Your task to perform on an android device: What's on my calendar today? Image 0: 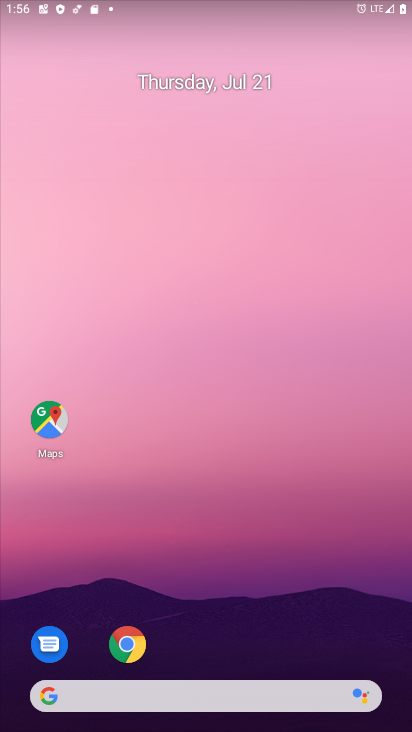
Step 0: drag from (248, 685) to (235, 323)
Your task to perform on an android device: What's on my calendar today? Image 1: 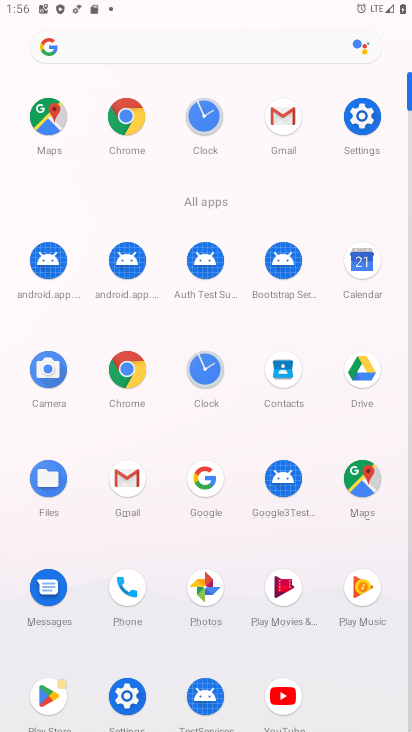
Step 1: click (361, 274)
Your task to perform on an android device: What's on my calendar today? Image 2: 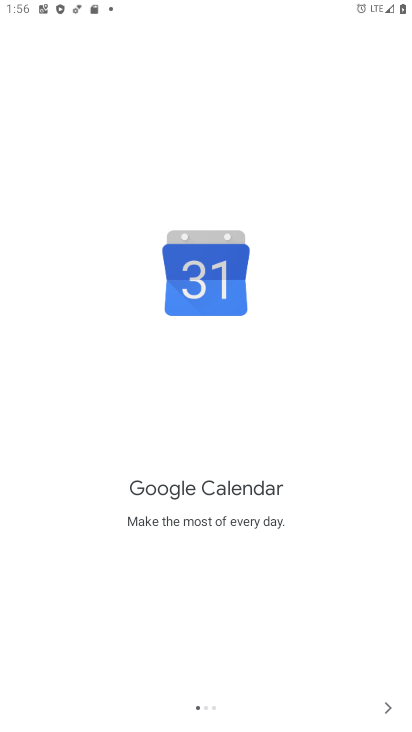
Step 2: click (383, 706)
Your task to perform on an android device: What's on my calendar today? Image 3: 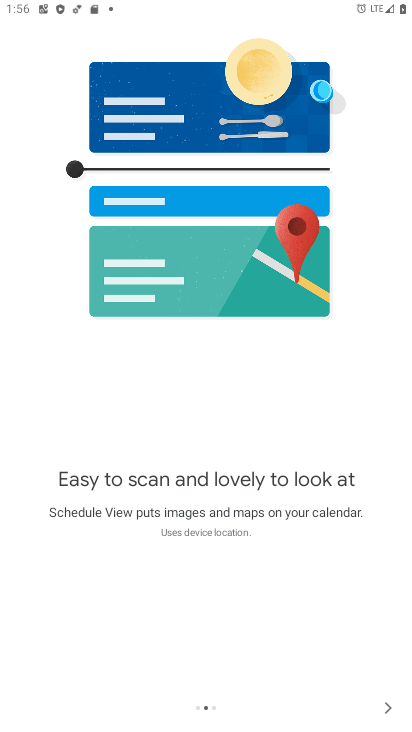
Step 3: click (383, 706)
Your task to perform on an android device: What's on my calendar today? Image 4: 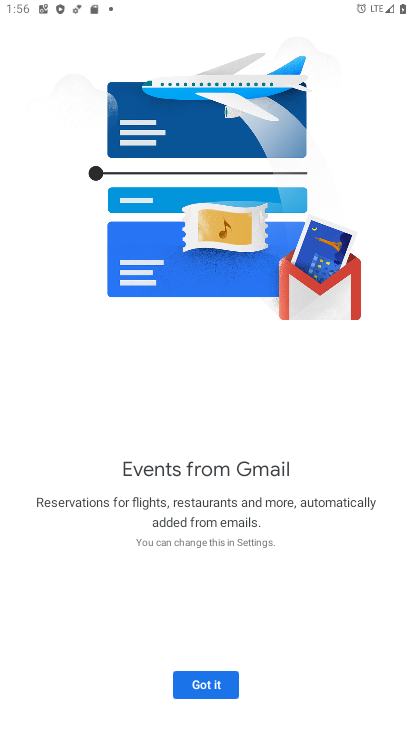
Step 4: click (196, 672)
Your task to perform on an android device: What's on my calendar today? Image 5: 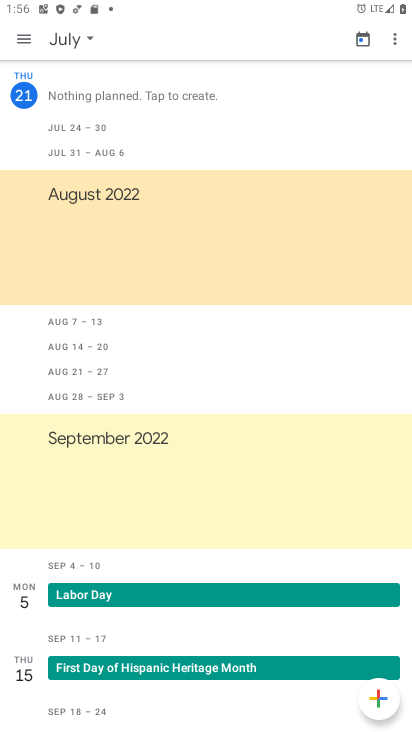
Step 5: click (87, 41)
Your task to perform on an android device: What's on my calendar today? Image 6: 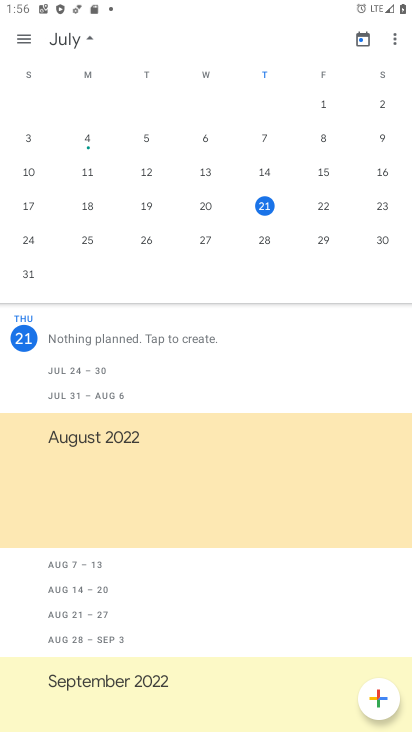
Step 6: click (269, 203)
Your task to perform on an android device: What's on my calendar today? Image 7: 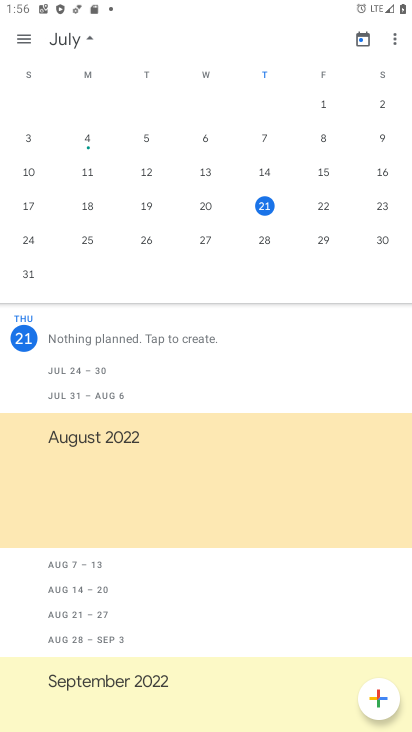
Step 7: task complete